Your task to perform on an android device: Empty the shopping cart on amazon.com. Search for "asus rog" on amazon.com, select the first entry, and add it to the cart. Image 0: 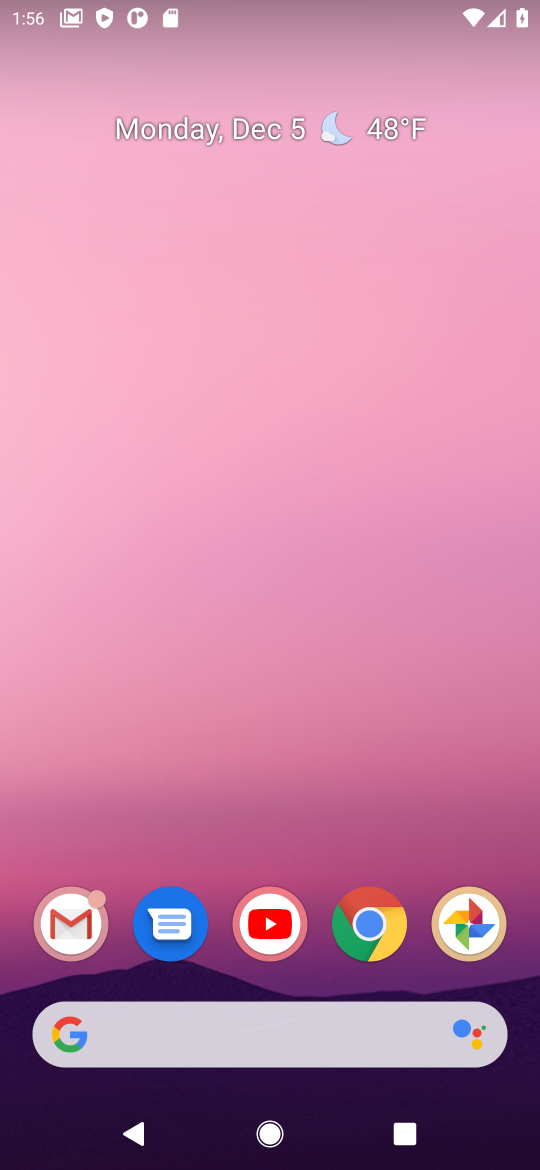
Step 0: click (241, 1045)
Your task to perform on an android device: Empty the shopping cart on amazon.com. Search for "asus rog" on amazon.com, select the first entry, and add it to the cart. Image 1: 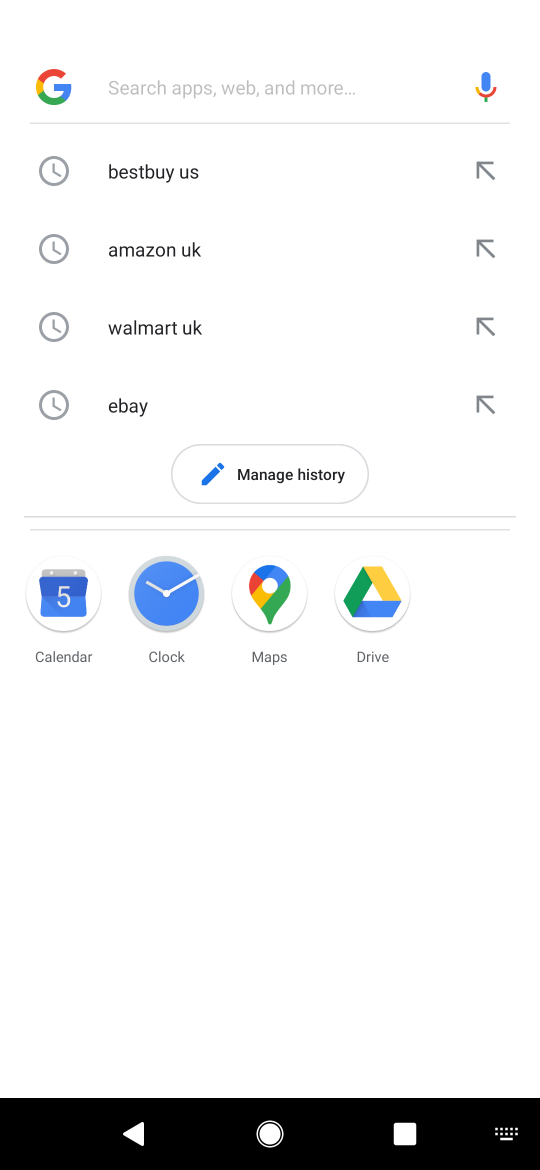
Step 1: type "amazon"
Your task to perform on an android device: Empty the shopping cart on amazon.com. Search for "asus rog" on amazon.com, select the first entry, and add it to the cart. Image 2: 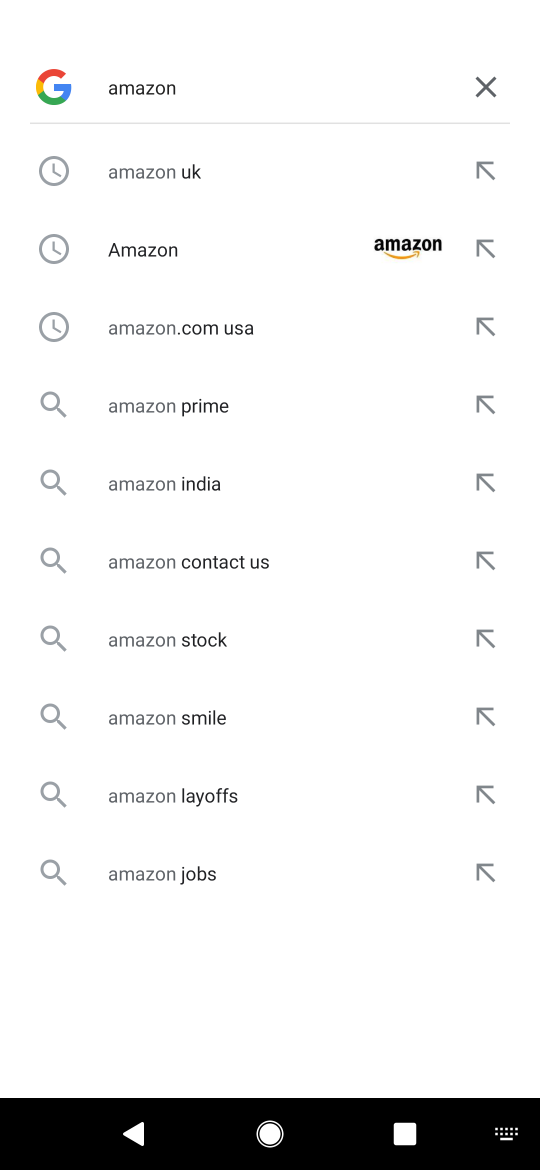
Step 2: click (202, 263)
Your task to perform on an android device: Empty the shopping cart on amazon.com. Search for "asus rog" on amazon.com, select the first entry, and add it to the cart. Image 3: 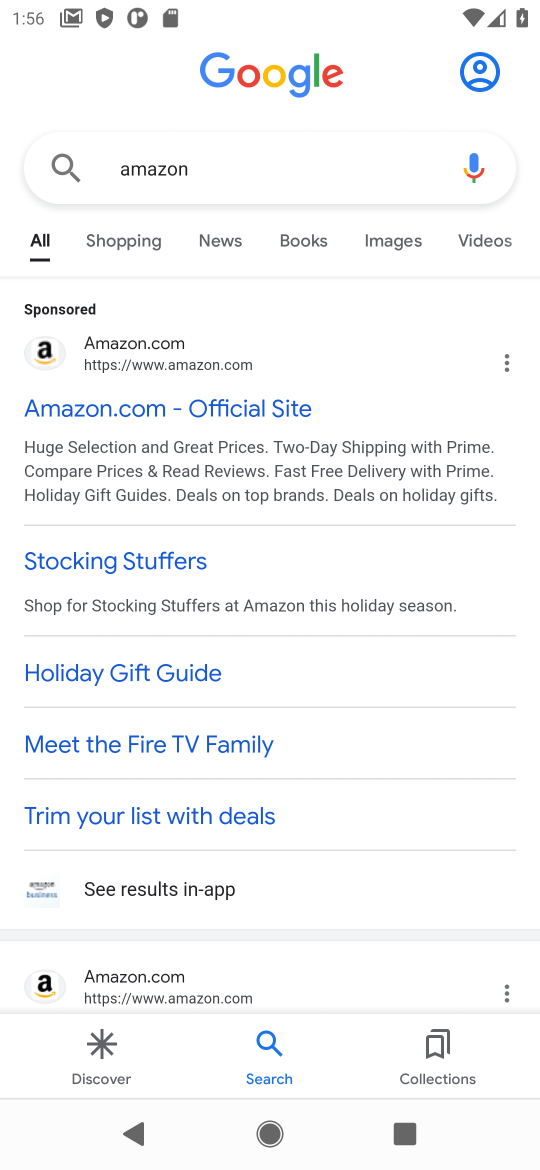
Step 3: click (140, 406)
Your task to perform on an android device: Empty the shopping cart on amazon.com. Search for "asus rog" on amazon.com, select the first entry, and add it to the cart. Image 4: 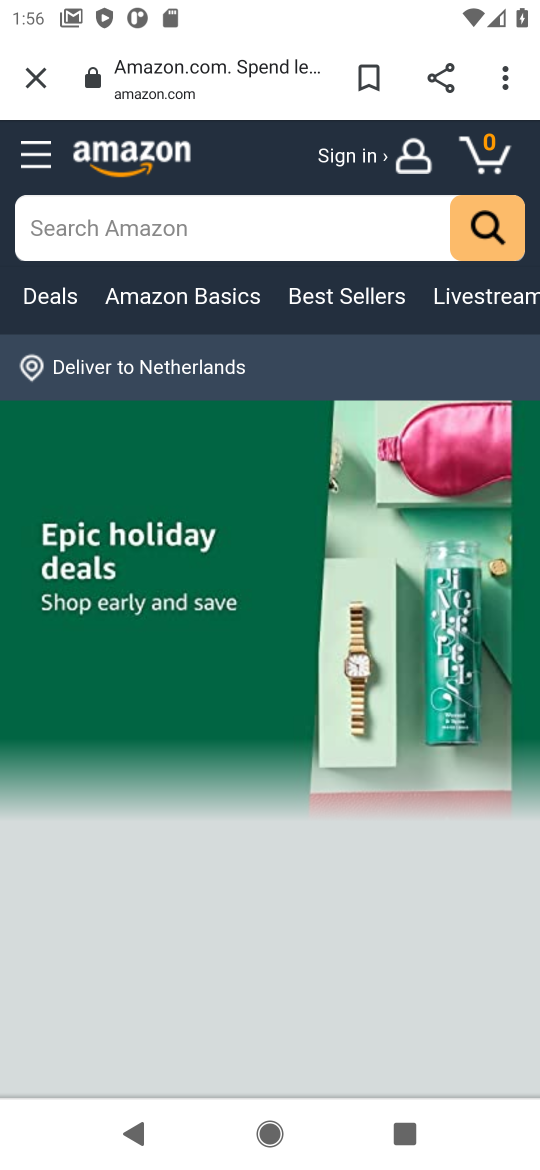
Step 4: click (219, 251)
Your task to perform on an android device: Empty the shopping cart on amazon.com. Search for "asus rog" on amazon.com, select the first entry, and add it to the cart. Image 5: 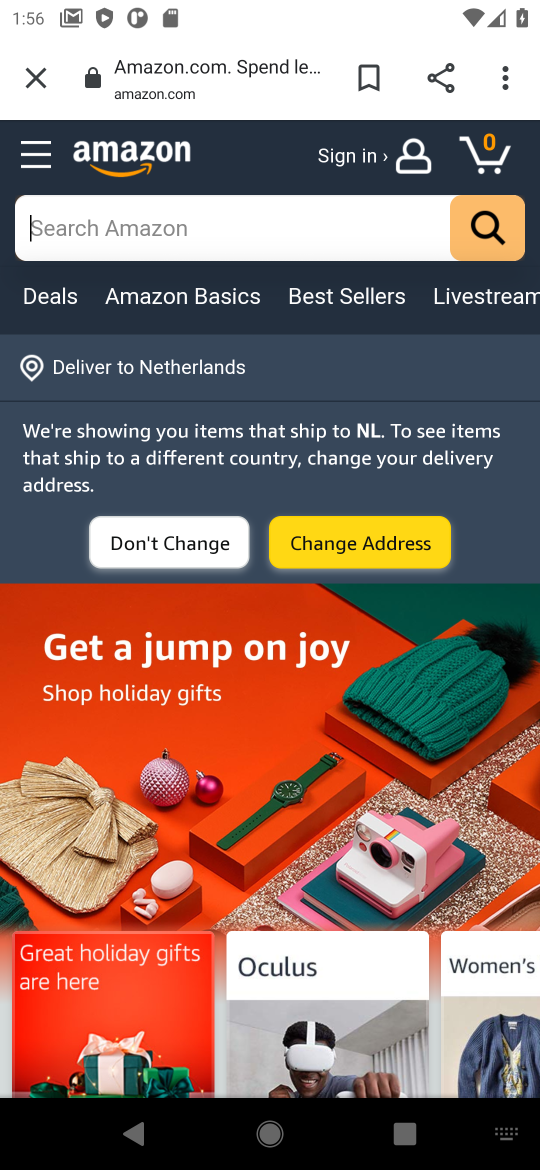
Step 5: type "asus rog"
Your task to perform on an android device: Empty the shopping cart on amazon.com. Search for "asus rog" on amazon.com, select the first entry, and add it to the cart. Image 6: 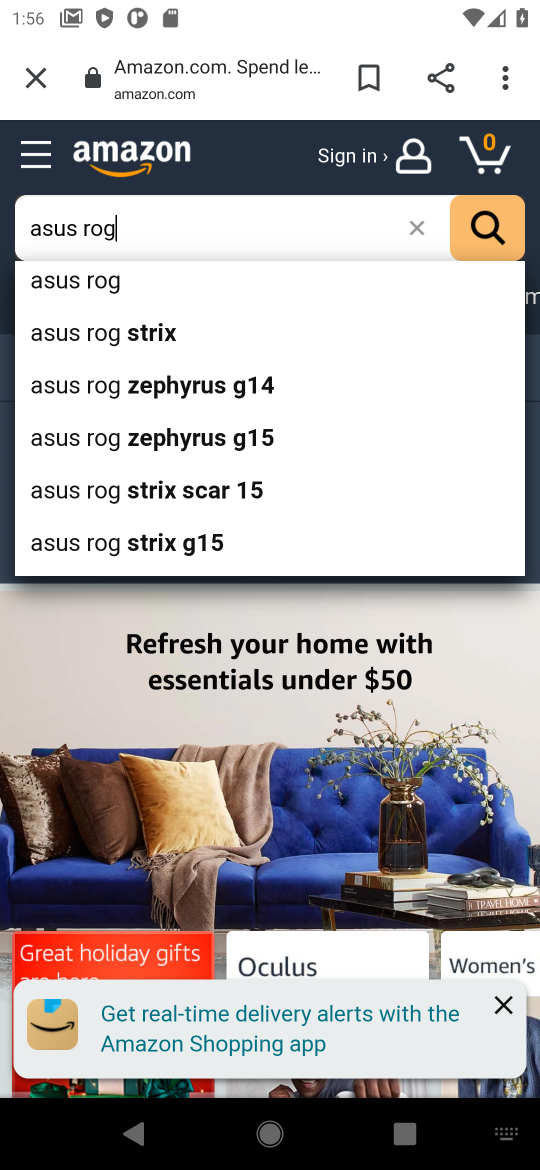
Step 6: click (79, 277)
Your task to perform on an android device: Empty the shopping cart on amazon.com. Search for "asus rog" on amazon.com, select the first entry, and add it to the cart. Image 7: 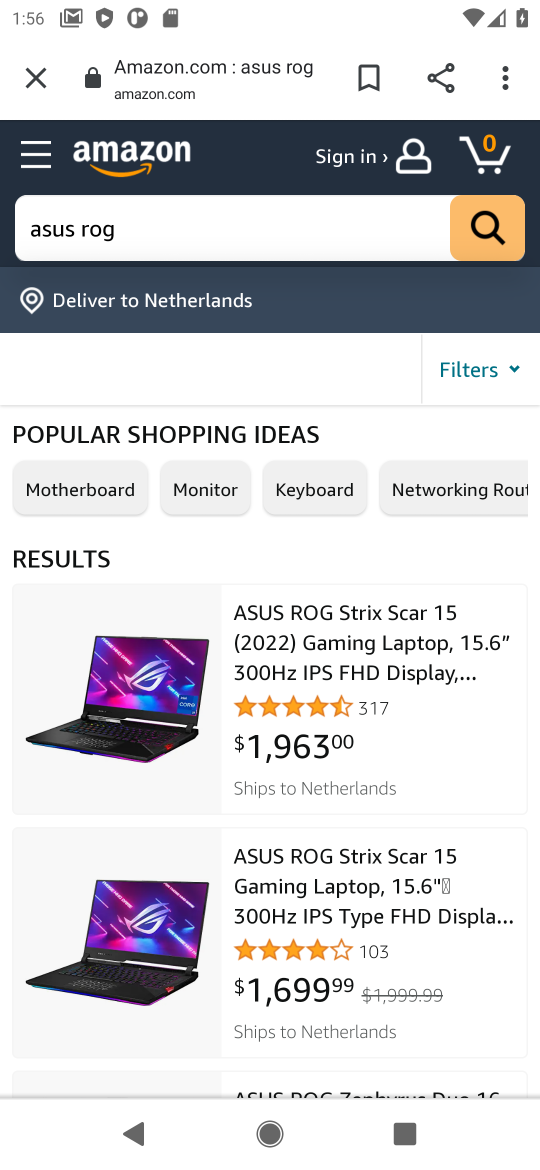
Step 7: click (318, 668)
Your task to perform on an android device: Empty the shopping cart on amazon.com. Search for "asus rog" on amazon.com, select the first entry, and add it to the cart. Image 8: 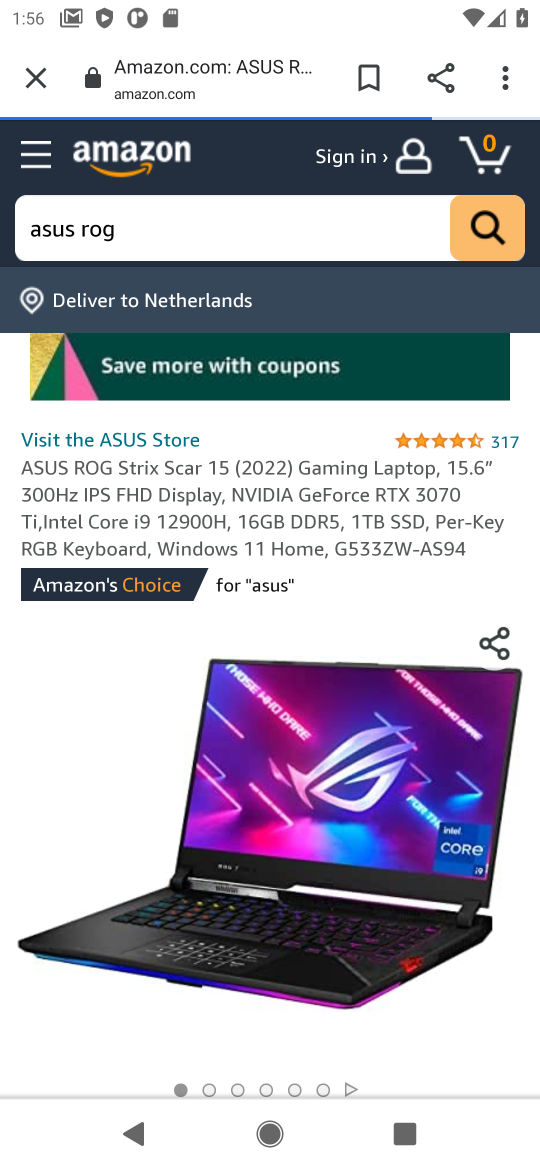
Step 8: drag from (202, 981) to (279, 183)
Your task to perform on an android device: Empty the shopping cart on amazon.com. Search for "asus rog" on amazon.com, select the first entry, and add it to the cart. Image 9: 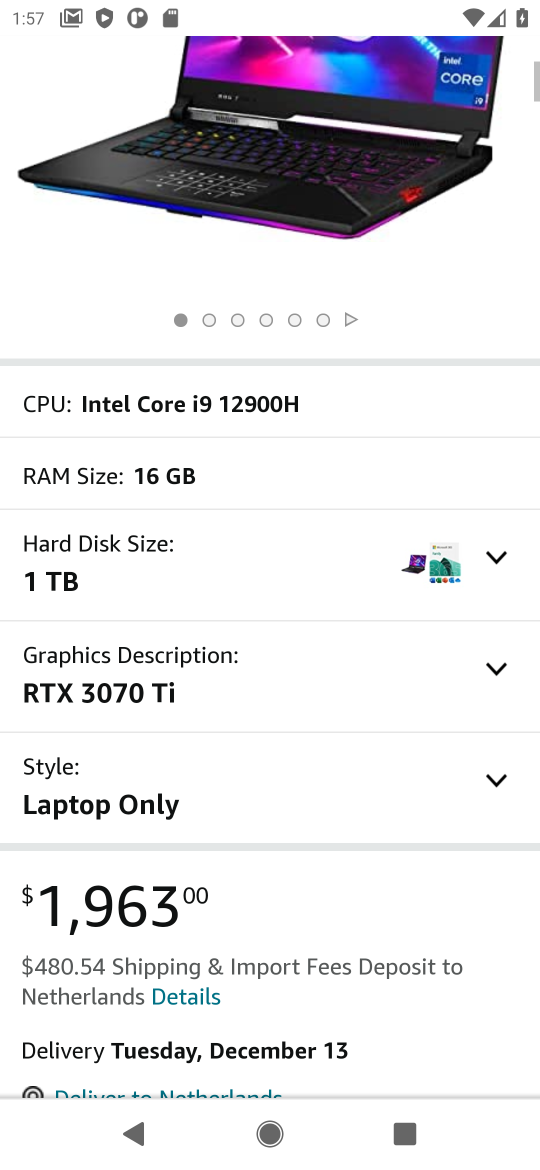
Step 9: drag from (324, 925) to (301, 417)
Your task to perform on an android device: Empty the shopping cart on amazon.com. Search for "asus rog" on amazon.com, select the first entry, and add it to the cart. Image 10: 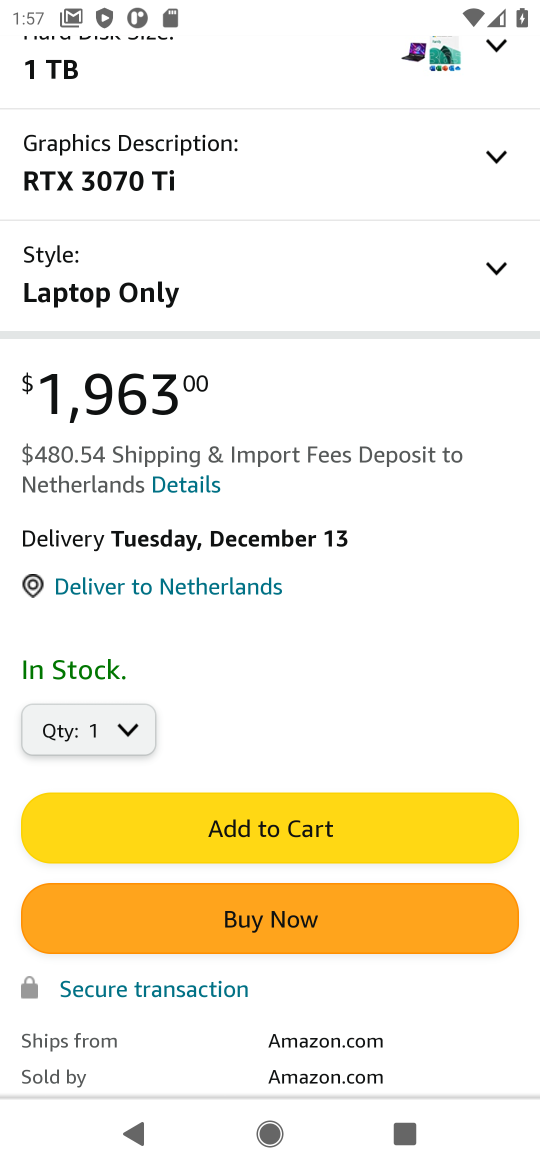
Step 10: click (278, 847)
Your task to perform on an android device: Empty the shopping cart on amazon.com. Search for "asus rog" on amazon.com, select the first entry, and add it to the cart. Image 11: 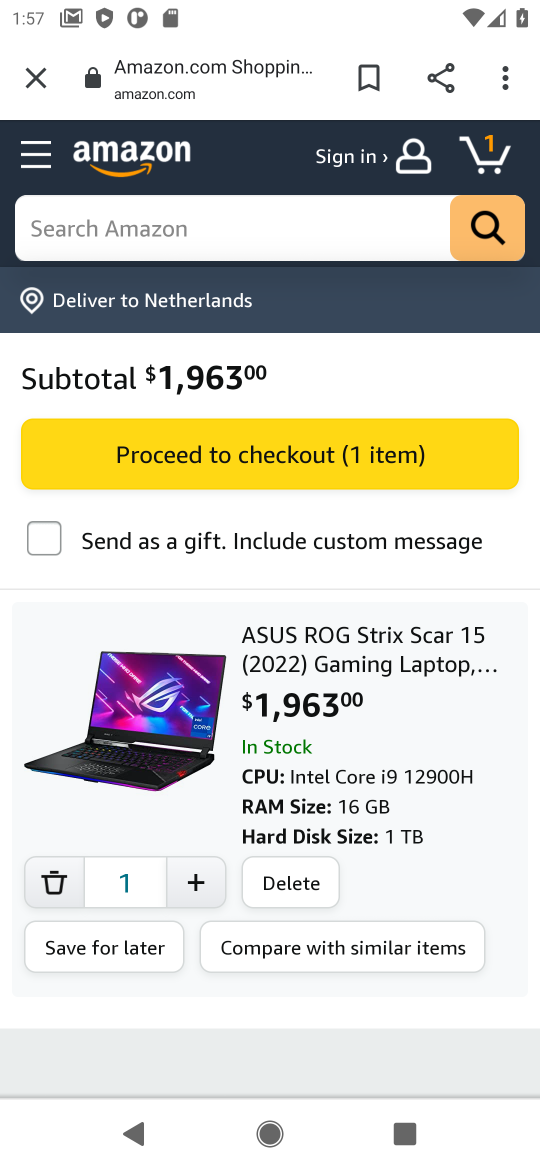
Step 11: task complete